Your task to perform on an android device: Go to Android settings Image 0: 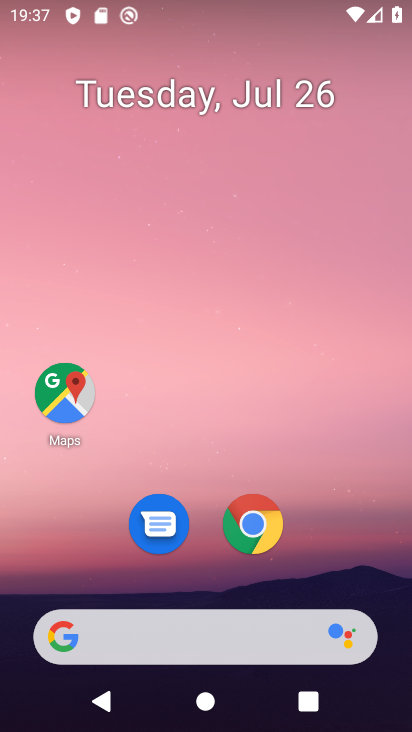
Step 0: drag from (262, 615) to (403, 171)
Your task to perform on an android device: Go to Android settings Image 1: 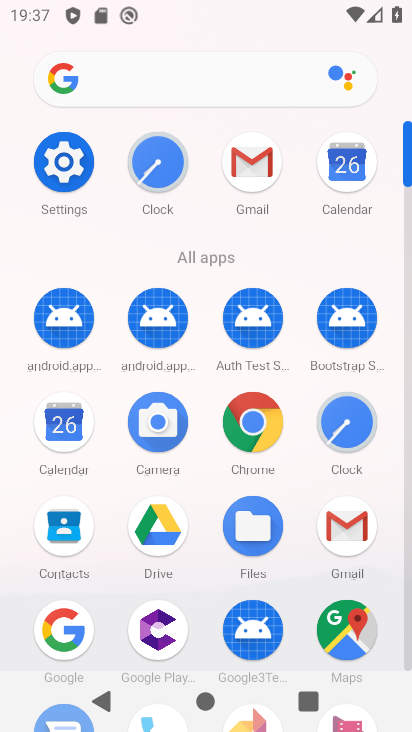
Step 1: click (68, 172)
Your task to perform on an android device: Go to Android settings Image 2: 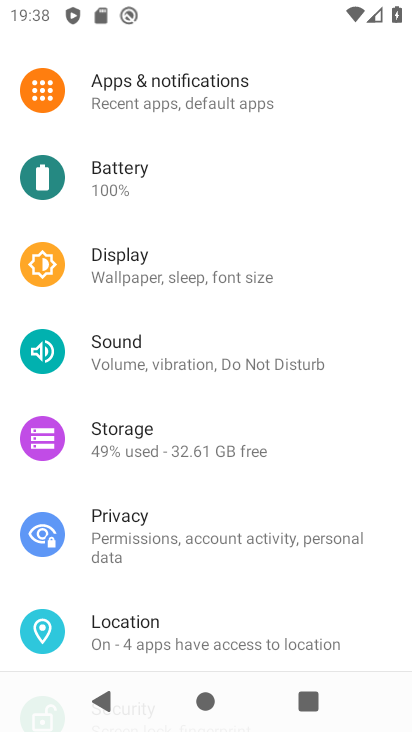
Step 2: task complete